Your task to perform on an android device: turn on priority inbox in the gmail app Image 0: 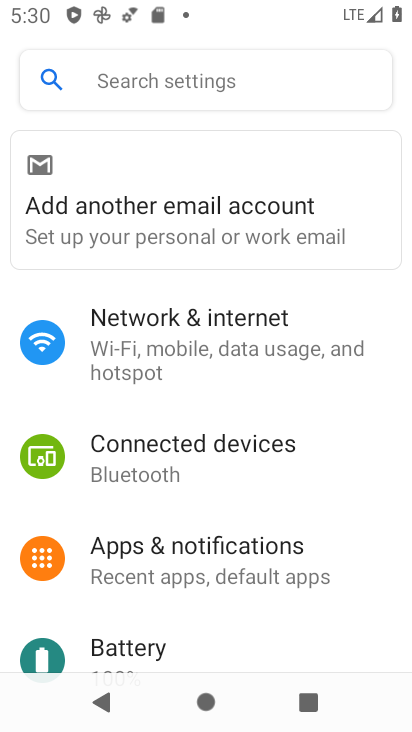
Step 0: press home button
Your task to perform on an android device: turn on priority inbox in the gmail app Image 1: 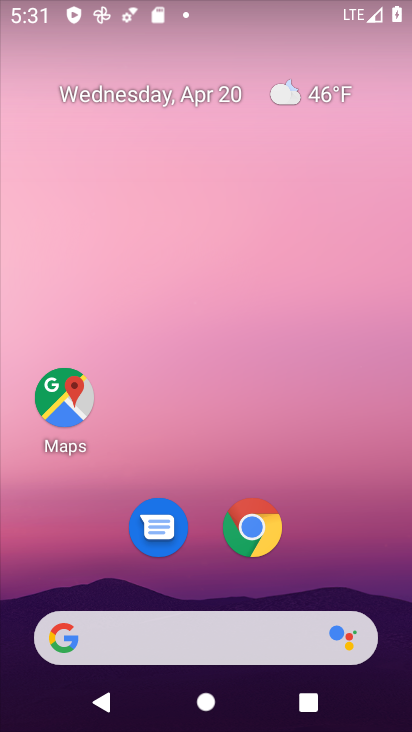
Step 1: drag from (200, 576) to (204, 61)
Your task to perform on an android device: turn on priority inbox in the gmail app Image 2: 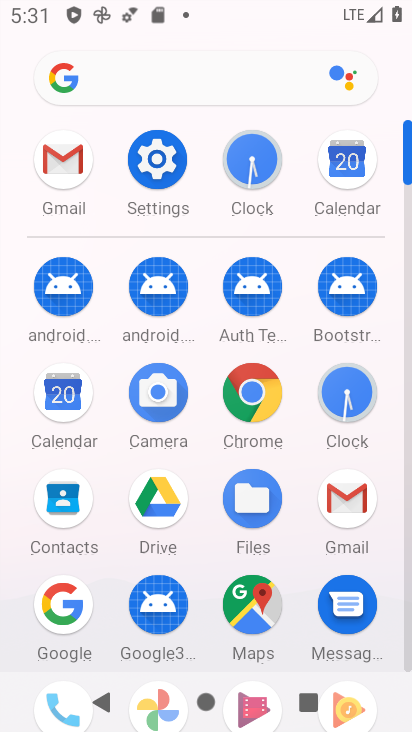
Step 2: click (347, 487)
Your task to perform on an android device: turn on priority inbox in the gmail app Image 3: 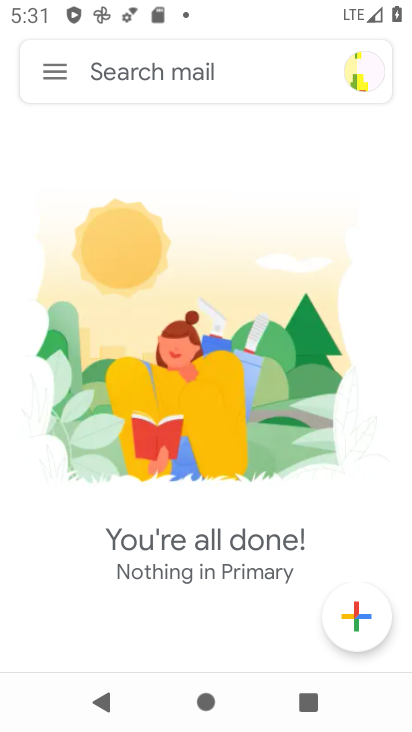
Step 3: click (57, 70)
Your task to perform on an android device: turn on priority inbox in the gmail app Image 4: 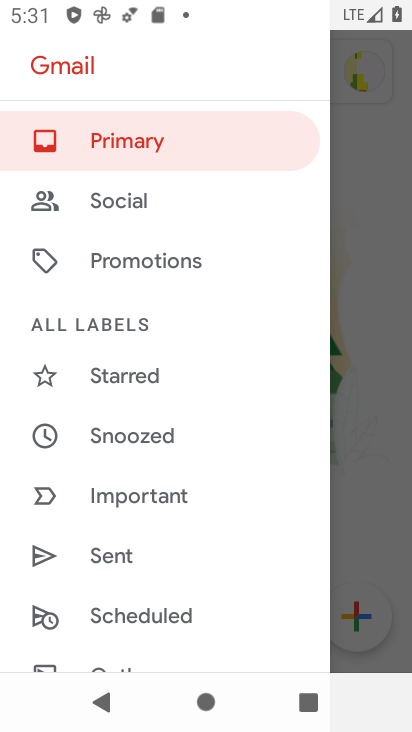
Step 4: drag from (195, 507) to (212, 165)
Your task to perform on an android device: turn on priority inbox in the gmail app Image 5: 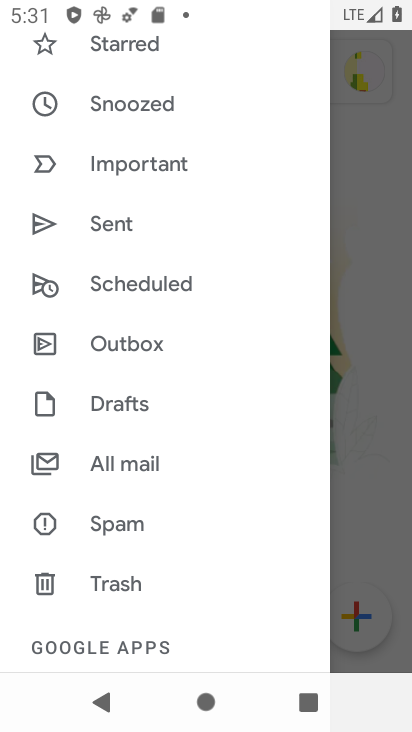
Step 5: drag from (145, 585) to (184, 238)
Your task to perform on an android device: turn on priority inbox in the gmail app Image 6: 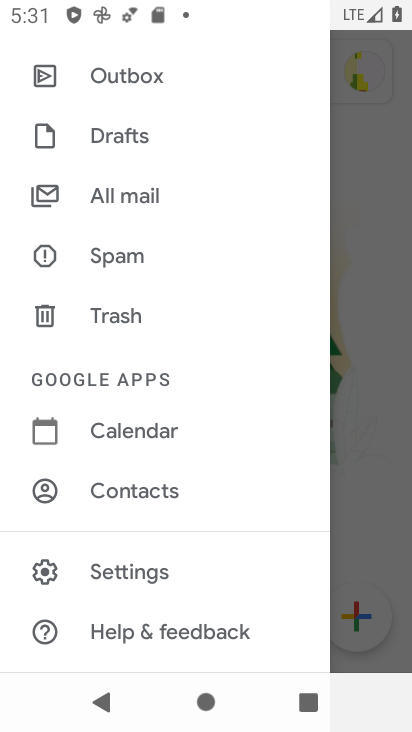
Step 6: click (164, 568)
Your task to perform on an android device: turn on priority inbox in the gmail app Image 7: 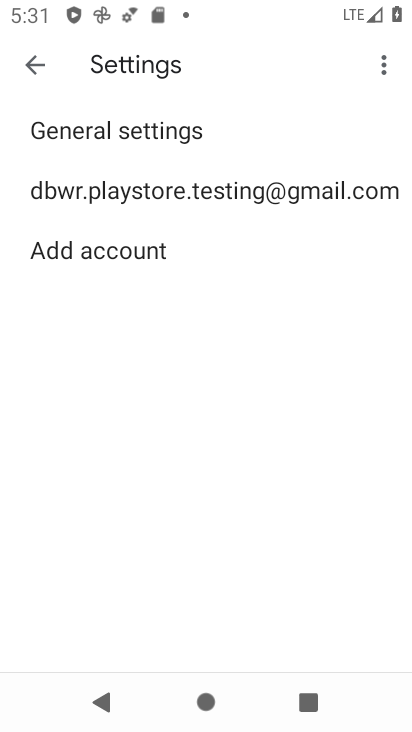
Step 7: click (162, 191)
Your task to perform on an android device: turn on priority inbox in the gmail app Image 8: 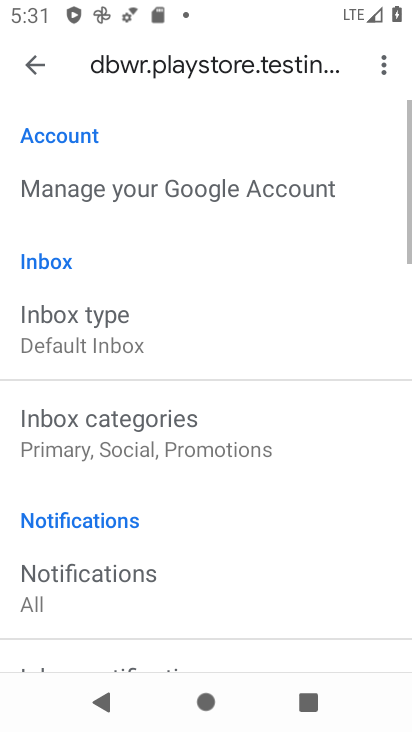
Step 8: click (103, 321)
Your task to perform on an android device: turn on priority inbox in the gmail app Image 9: 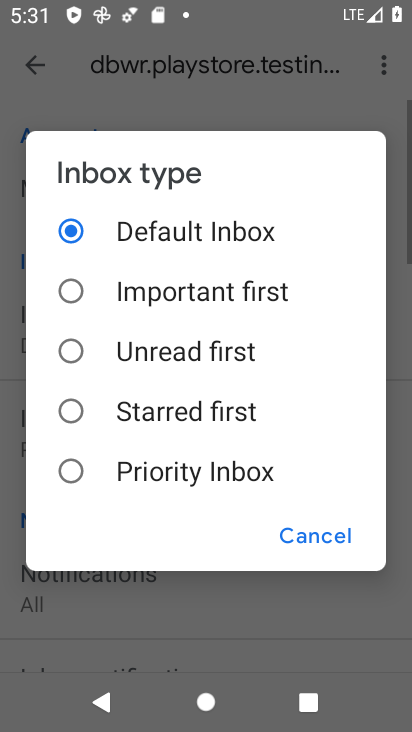
Step 9: click (181, 467)
Your task to perform on an android device: turn on priority inbox in the gmail app Image 10: 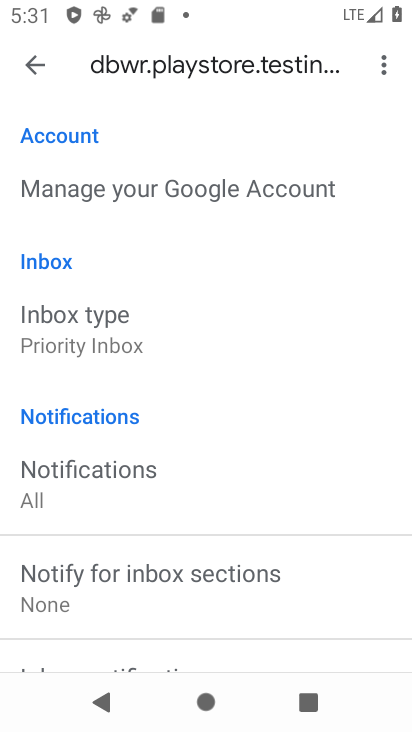
Step 10: task complete